Your task to perform on an android device: toggle airplane mode Image 0: 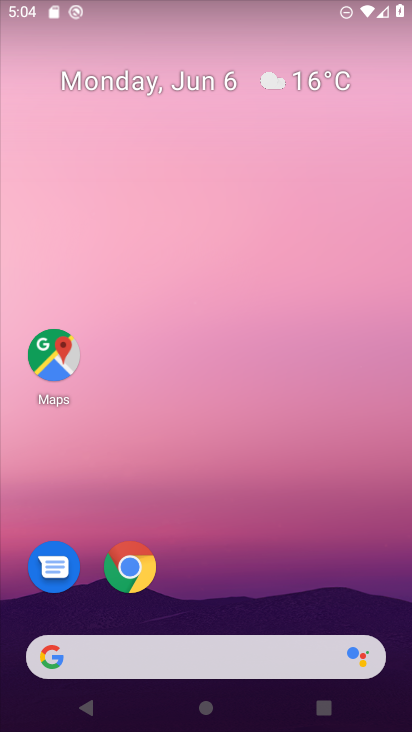
Step 0: click (133, 66)
Your task to perform on an android device: toggle airplane mode Image 1: 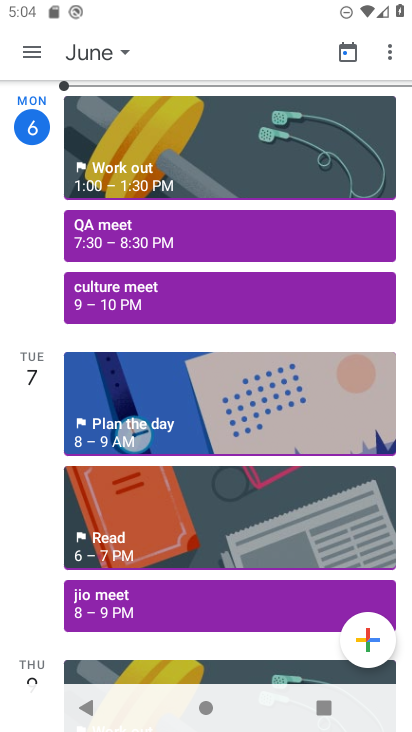
Step 1: press back button
Your task to perform on an android device: toggle airplane mode Image 2: 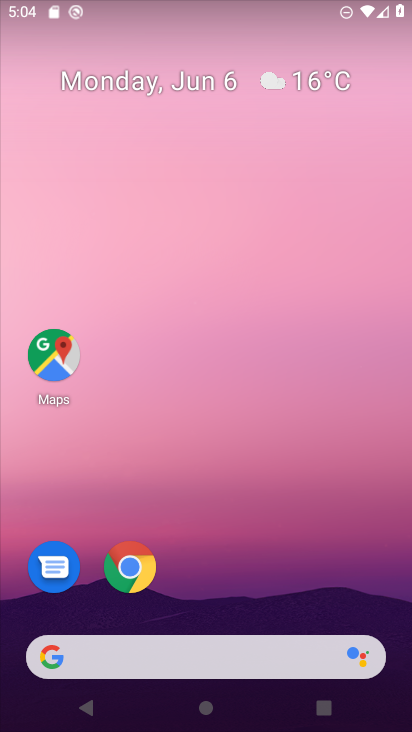
Step 2: drag from (211, 466) to (105, 73)
Your task to perform on an android device: toggle airplane mode Image 3: 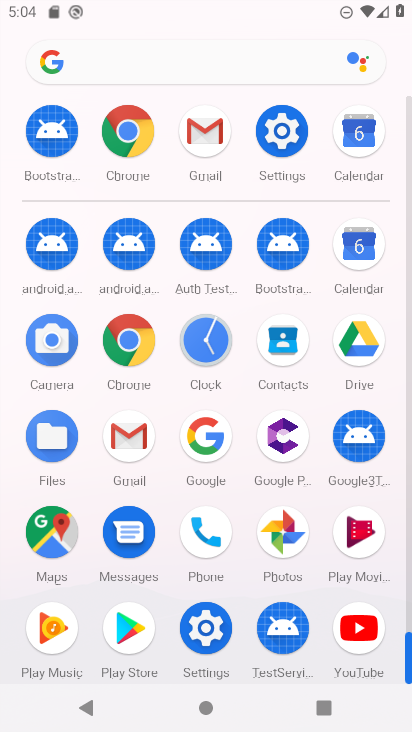
Step 3: click (274, 133)
Your task to perform on an android device: toggle airplane mode Image 4: 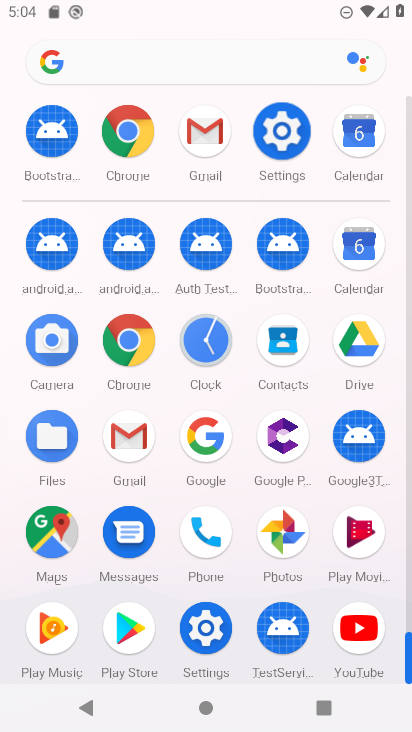
Step 4: click (277, 133)
Your task to perform on an android device: toggle airplane mode Image 5: 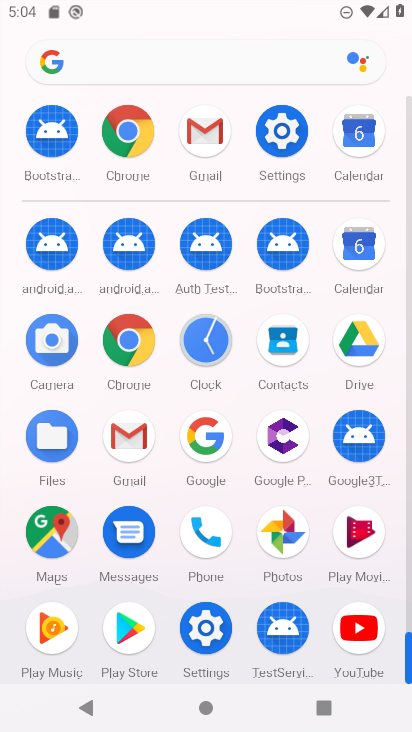
Step 5: click (275, 132)
Your task to perform on an android device: toggle airplane mode Image 6: 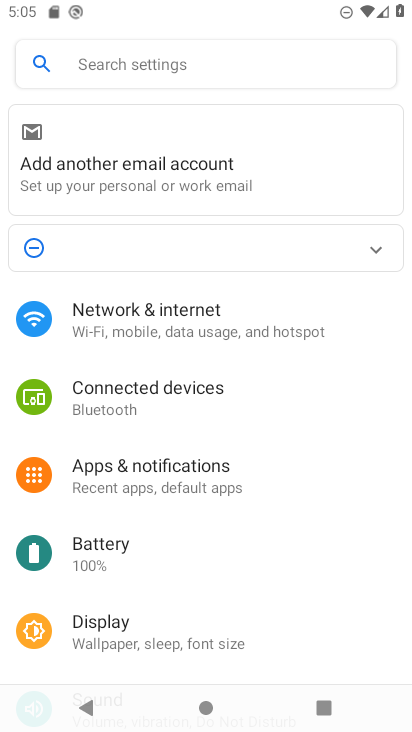
Step 6: click (154, 324)
Your task to perform on an android device: toggle airplane mode Image 7: 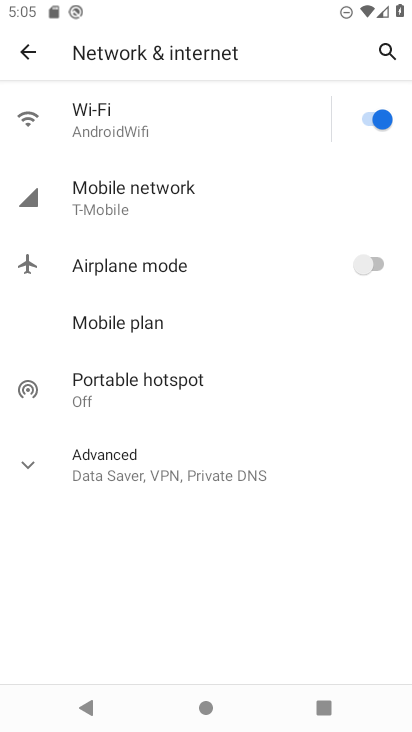
Step 7: click (373, 272)
Your task to perform on an android device: toggle airplane mode Image 8: 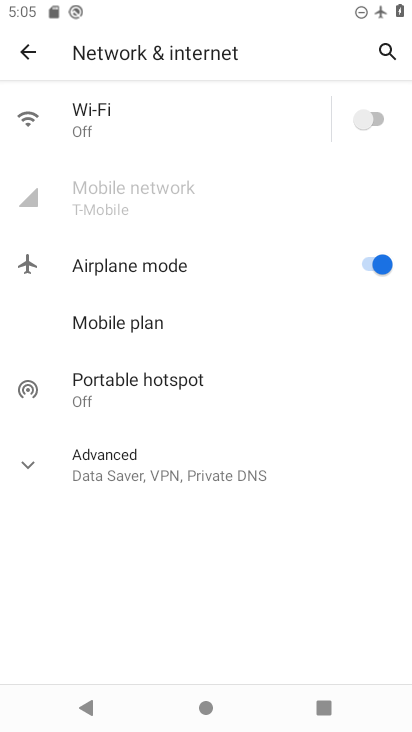
Step 8: task complete